Your task to perform on an android device: Open settings Image 0: 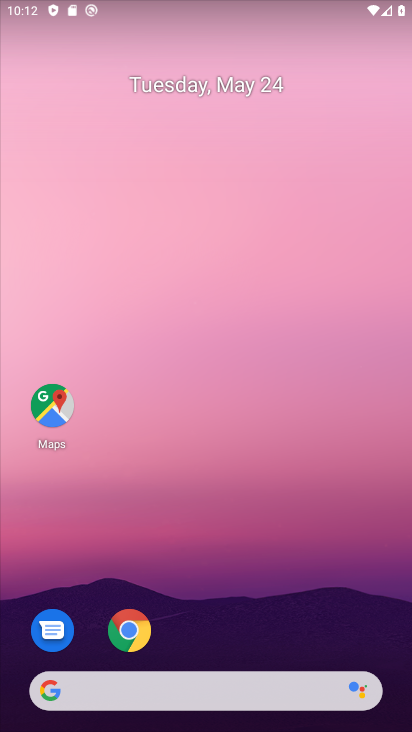
Step 0: drag from (220, 650) to (237, 61)
Your task to perform on an android device: Open settings Image 1: 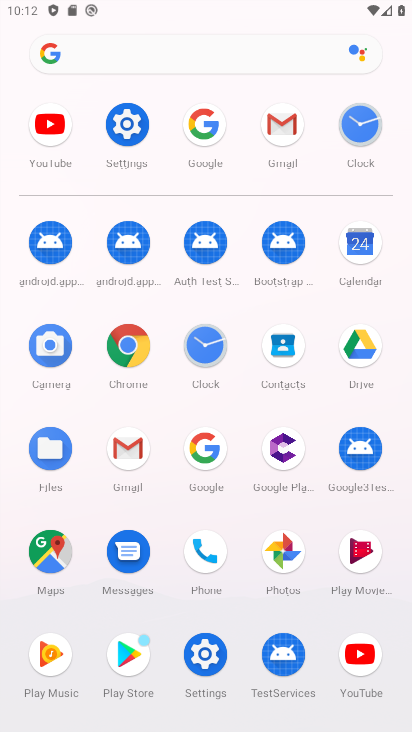
Step 1: click (124, 116)
Your task to perform on an android device: Open settings Image 2: 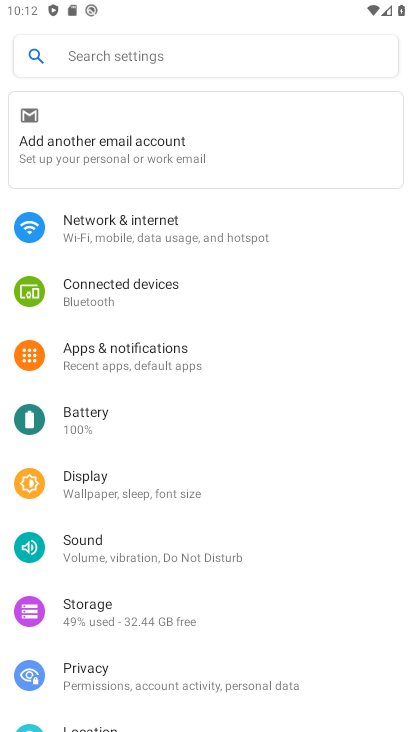
Step 2: task complete